Your task to perform on an android device: find snoozed emails in the gmail app Image 0: 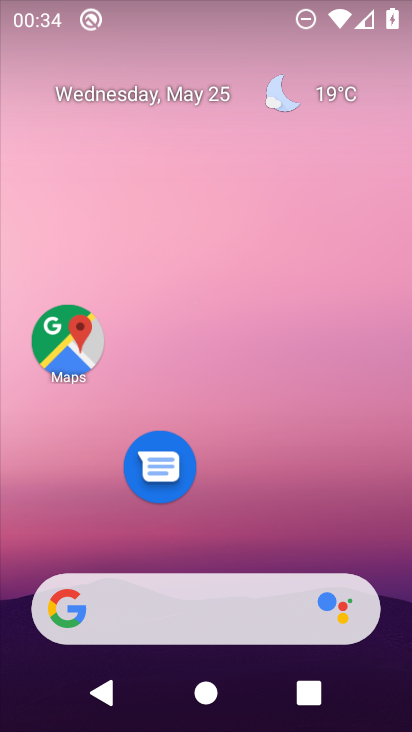
Step 0: drag from (215, 548) to (269, 65)
Your task to perform on an android device: find snoozed emails in the gmail app Image 1: 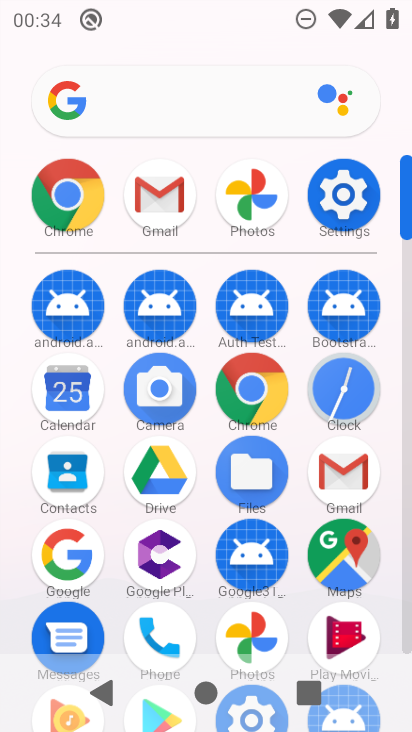
Step 1: click (330, 468)
Your task to perform on an android device: find snoozed emails in the gmail app Image 2: 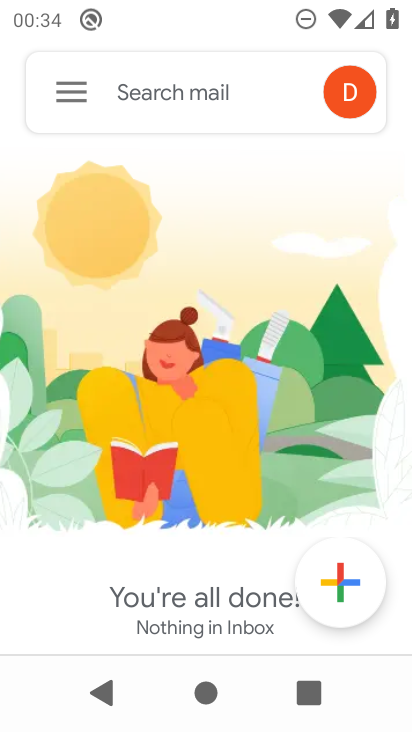
Step 2: drag from (243, 613) to (262, 235)
Your task to perform on an android device: find snoozed emails in the gmail app Image 3: 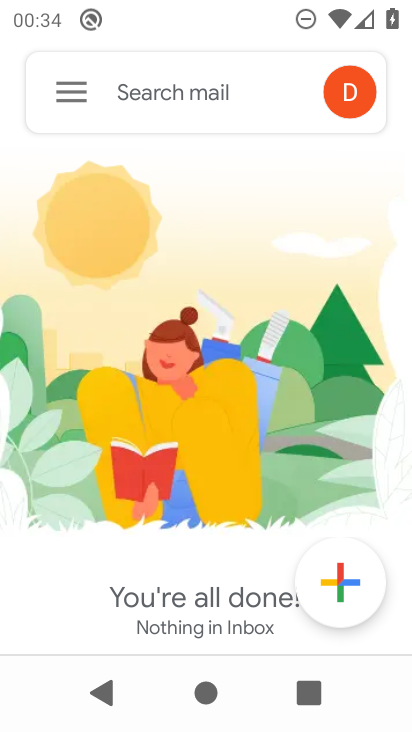
Step 3: click (62, 94)
Your task to perform on an android device: find snoozed emails in the gmail app Image 4: 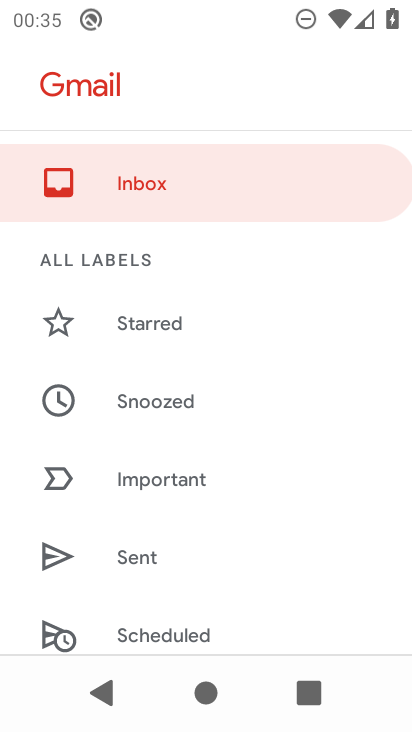
Step 4: drag from (181, 606) to (307, 82)
Your task to perform on an android device: find snoozed emails in the gmail app Image 5: 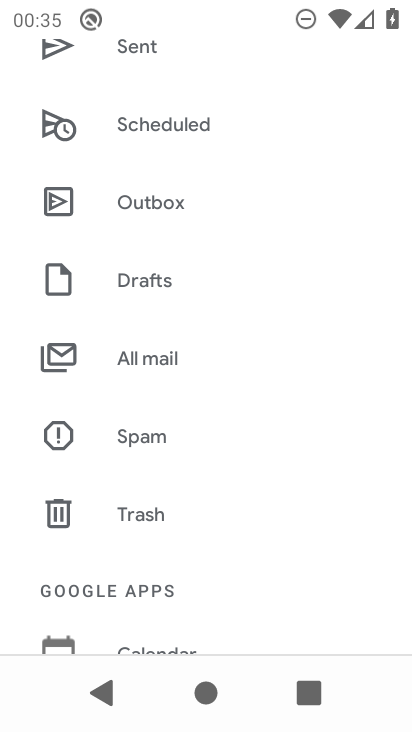
Step 5: drag from (208, 157) to (233, 681)
Your task to perform on an android device: find snoozed emails in the gmail app Image 6: 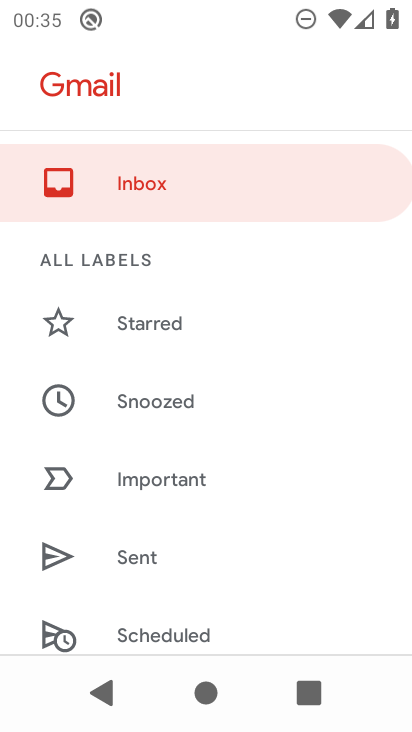
Step 6: click (178, 408)
Your task to perform on an android device: find snoozed emails in the gmail app Image 7: 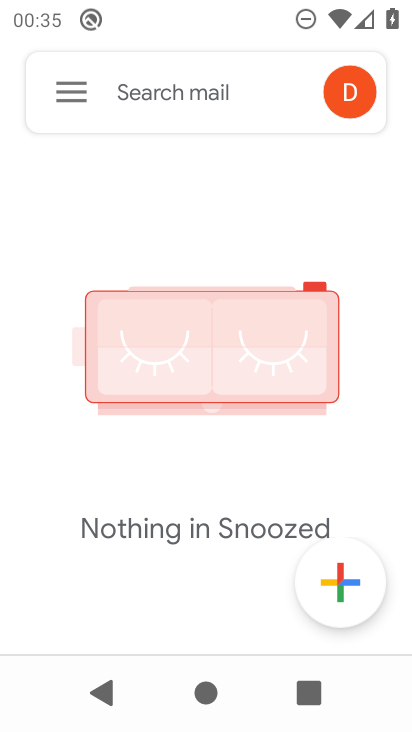
Step 7: task complete